Your task to perform on an android device: Open Youtube and go to the subscriptions tab Image 0: 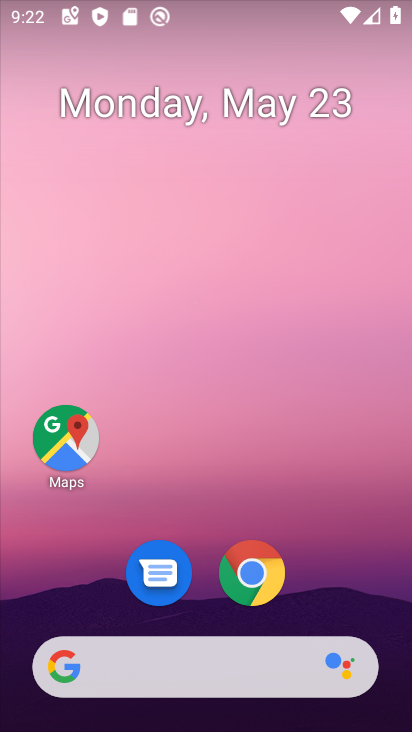
Step 0: drag from (388, 613) to (395, 182)
Your task to perform on an android device: Open Youtube and go to the subscriptions tab Image 1: 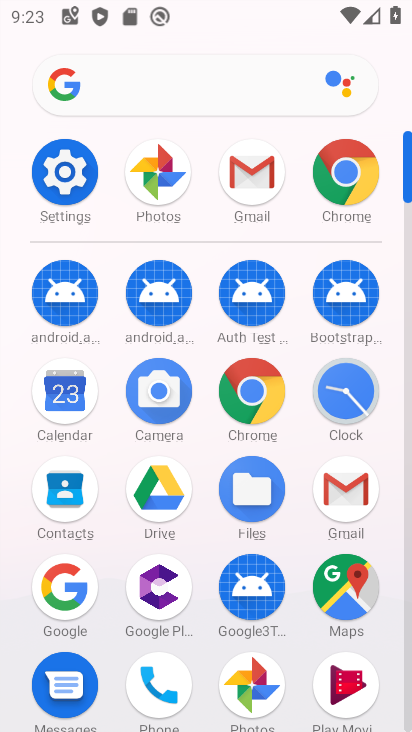
Step 1: drag from (384, 691) to (370, 417)
Your task to perform on an android device: Open Youtube and go to the subscriptions tab Image 2: 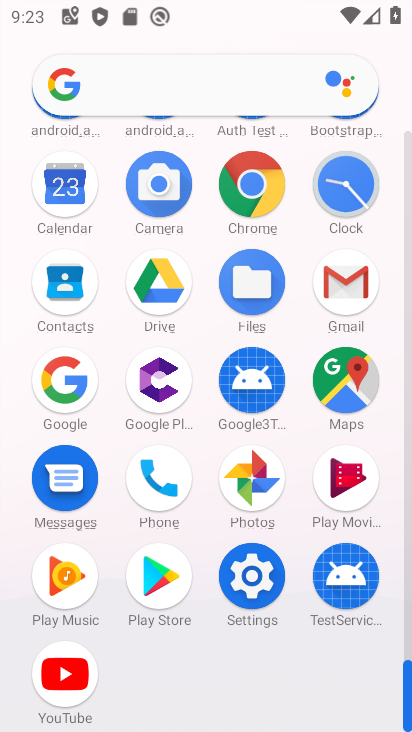
Step 2: click (66, 685)
Your task to perform on an android device: Open Youtube and go to the subscriptions tab Image 3: 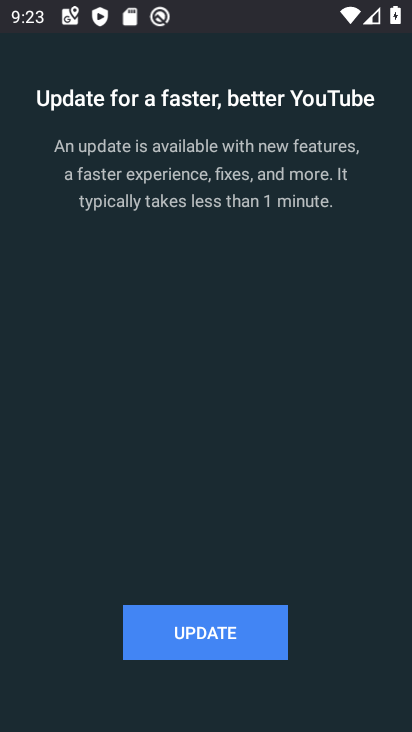
Step 3: click (144, 656)
Your task to perform on an android device: Open Youtube and go to the subscriptions tab Image 4: 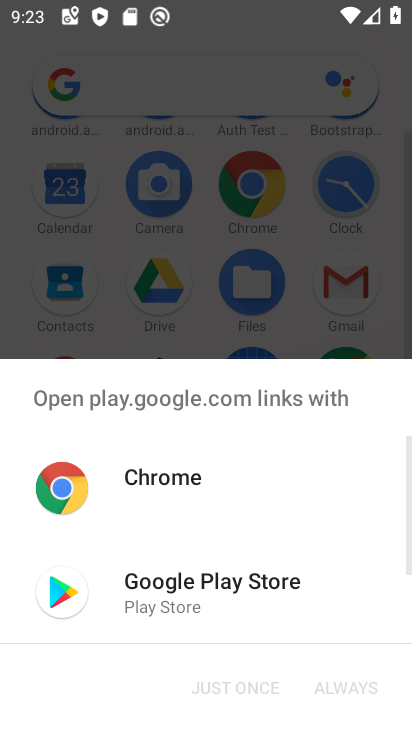
Step 4: click (182, 600)
Your task to perform on an android device: Open Youtube and go to the subscriptions tab Image 5: 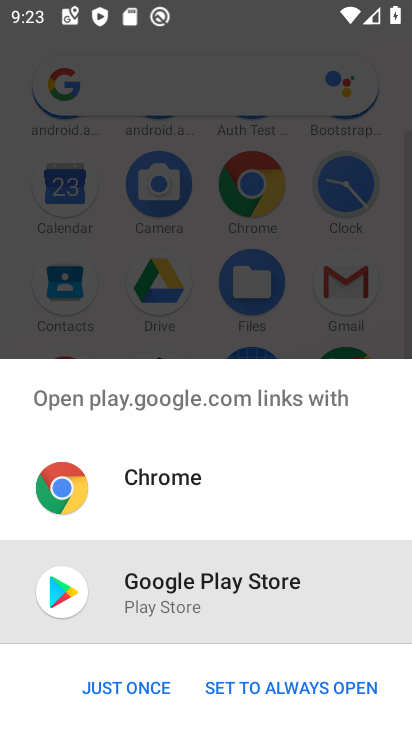
Step 5: click (152, 685)
Your task to perform on an android device: Open Youtube and go to the subscriptions tab Image 6: 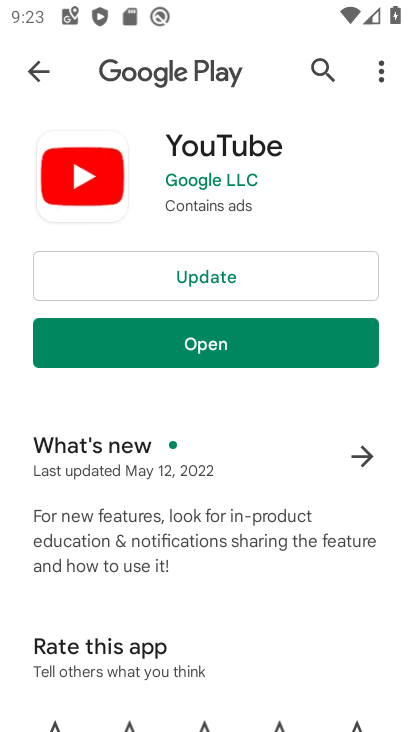
Step 6: click (281, 266)
Your task to perform on an android device: Open Youtube and go to the subscriptions tab Image 7: 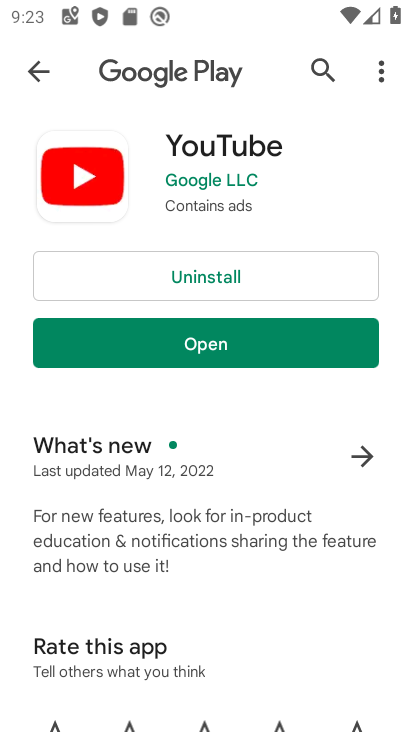
Step 7: click (346, 346)
Your task to perform on an android device: Open Youtube and go to the subscriptions tab Image 8: 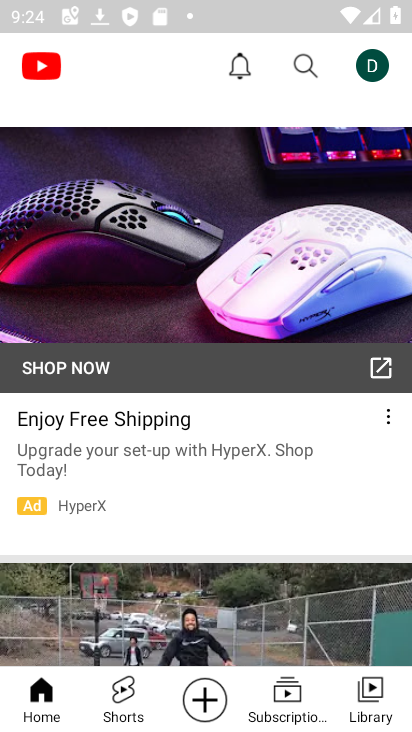
Step 8: click (297, 710)
Your task to perform on an android device: Open Youtube and go to the subscriptions tab Image 9: 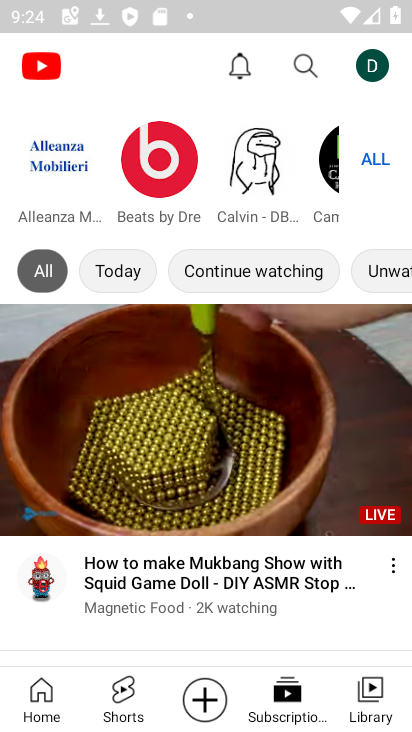
Step 9: task complete